Your task to perform on an android device: Set the phone to "Do not disturb". Image 0: 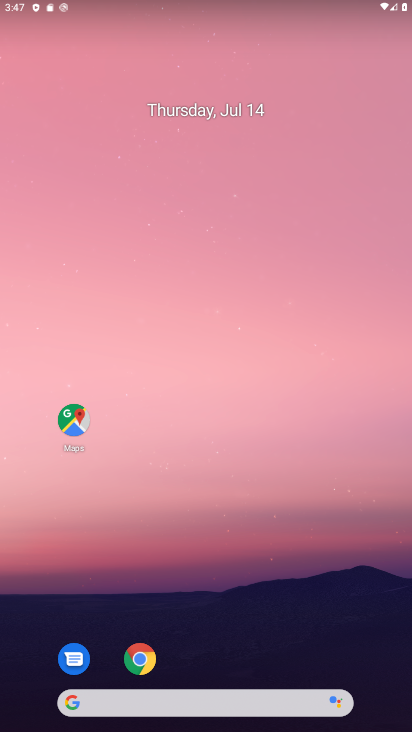
Step 0: drag from (198, 720) to (116, 165)
Your task to perform on an android device: Set the phone to "Do not disturb". Image 1: 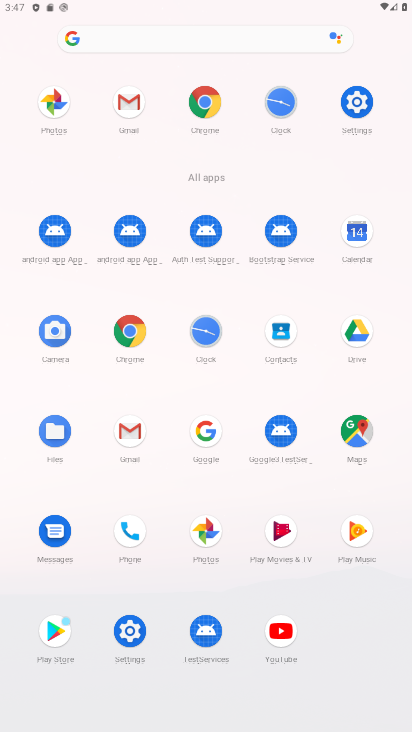
Step 1: click (344, 104)
Your task to perform on an android device: Set the phone to "Do not disturb". Image 2: 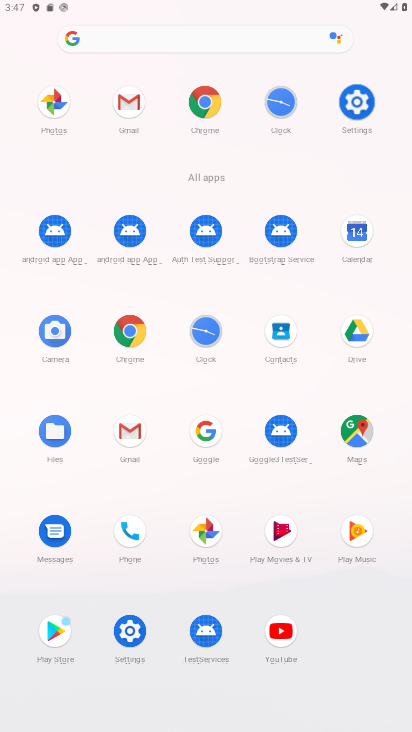
Step 2: click (344, 104)
Your task to perform on an android device: Set the phone to "Do not disturb". Image 3: 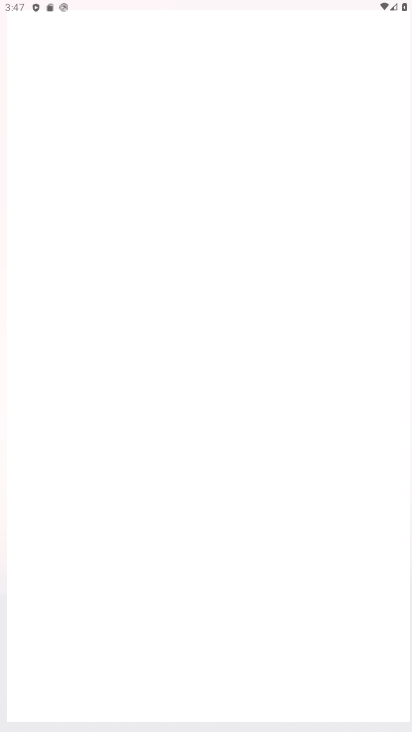
Step 3: click (347, 105)
Your task to perform on an android device: Set the phone to "Do not disturb". Image 4: 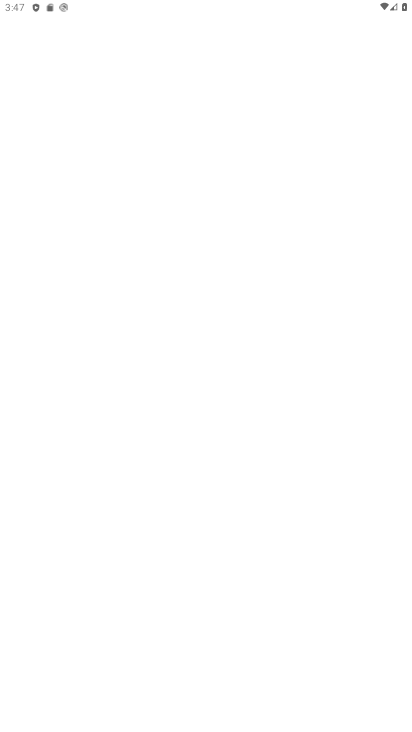
Step 4: click (348, 106)
Your task to perform on an android device: Set the phone to "Do not disturb". Image 5: 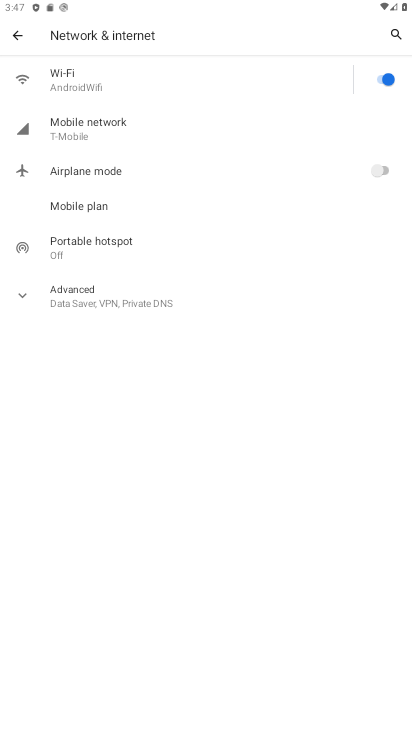
Step 5: click (25, 33)
Your task to perform on an android device: Set the phone to "Do not disturb". Image 6: 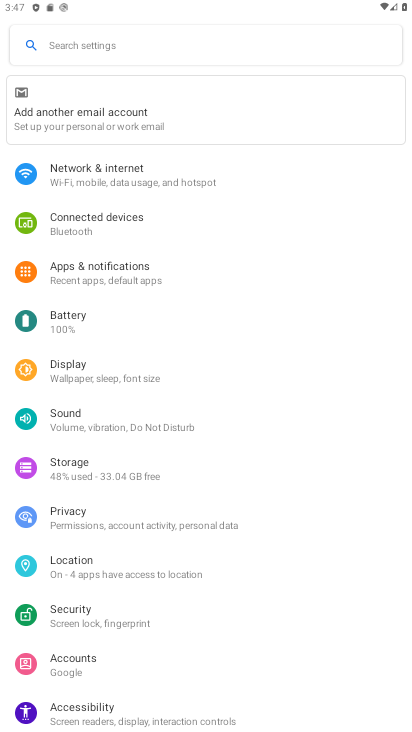
Step 6: click (101, 427)
Your task to perform on an android device: Set the phone to "Do not disturb". Image 7: 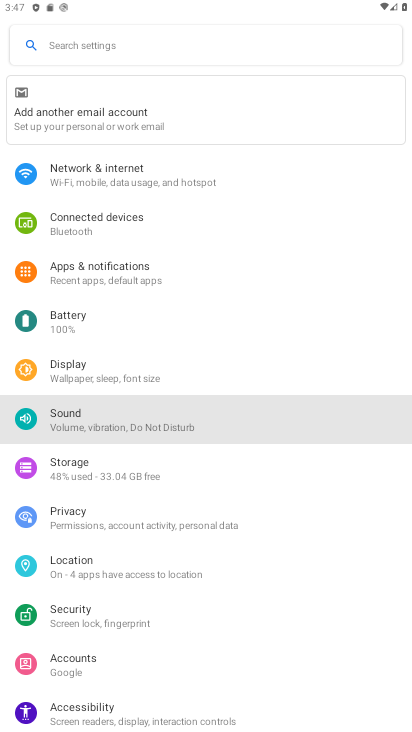
Step 7: click (111, 423)
Your task to perform on an android device: Set the phone to "Do not disturb". Image 8: 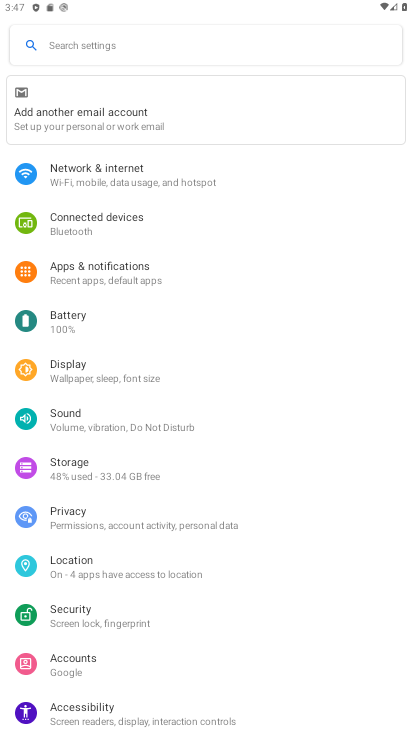
Step 8: click (112, 423)
Your task to perform on an android device: Set the phone to "Do not disturb". Image 9: 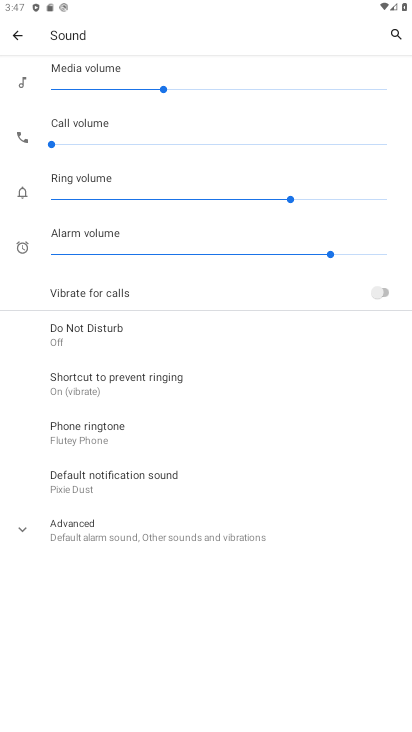
Step 9: task complete